Your task to perform on an android device: turn off picture-in-picture Image 0: 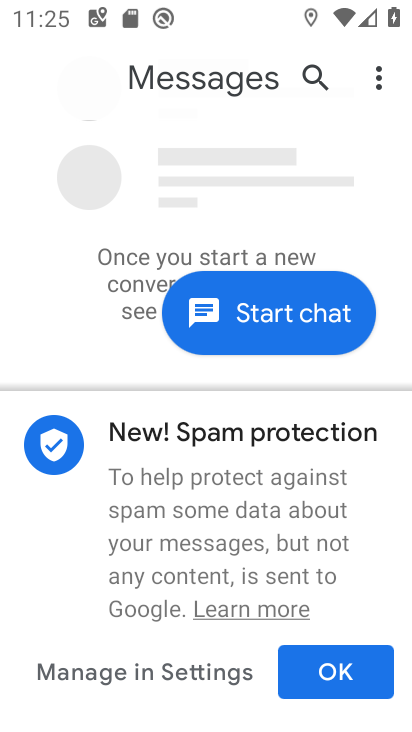
Step 0: press home button
Your task to perform on an android device: turn off picture-in-picture Image 1: 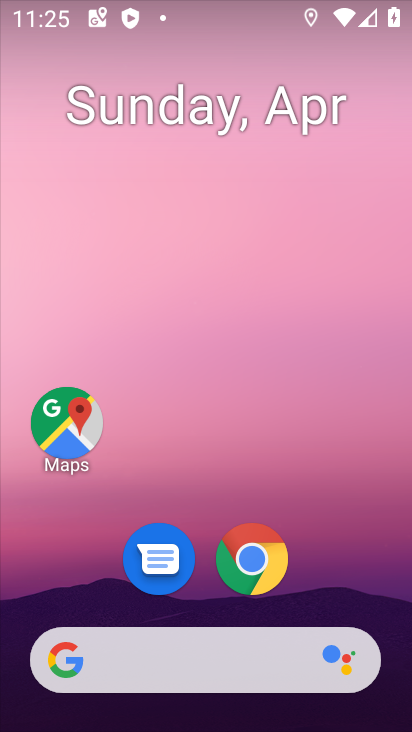
Step 1: click (262, 557)
Your task to perform on an android device: turn off picture-in-picture Image 2: 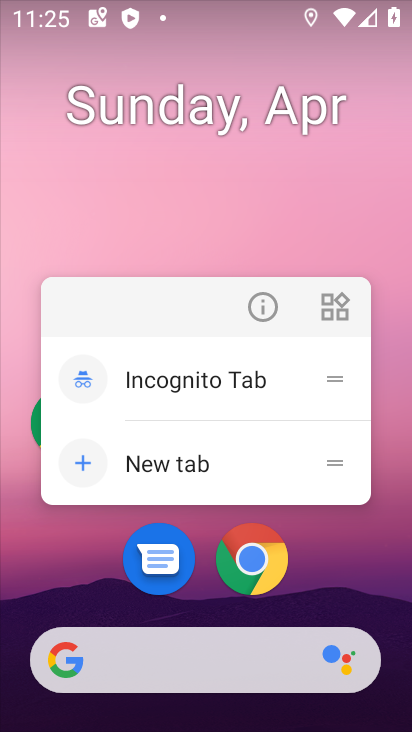
Step 2: click (260, 313)
Your task to perform on an android device: turn off picture-in-picture Image 3: 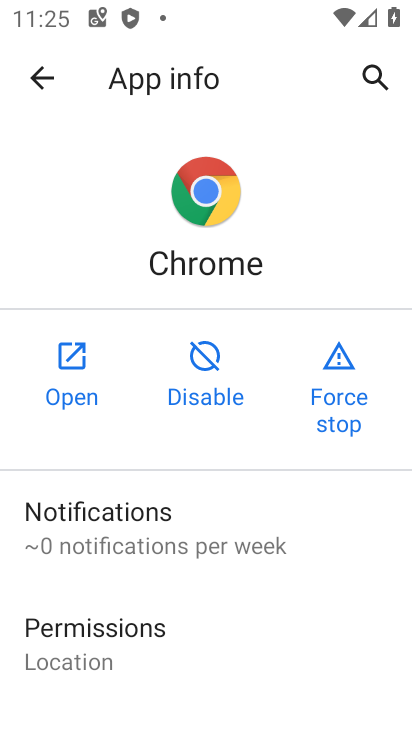
Step 3: drag from (273, 553) to (267, 280)
Your task to perform on an android device: turn off picture-in-picture Image 4: 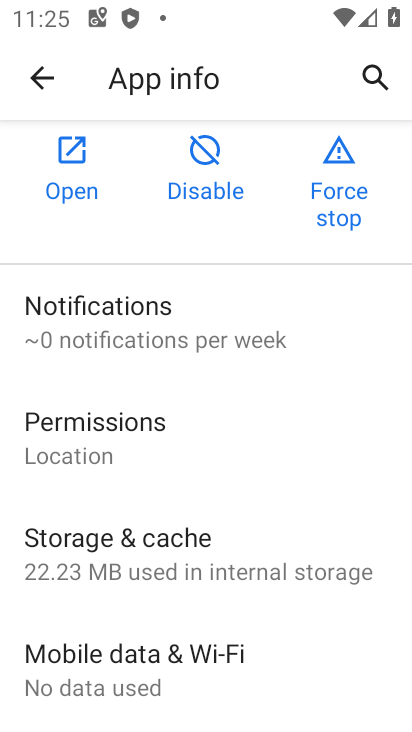
Step 4: drag from (248, 556) to (236, 287)
Your task to perform on an android device: turn off picture-in-picture Image 5: 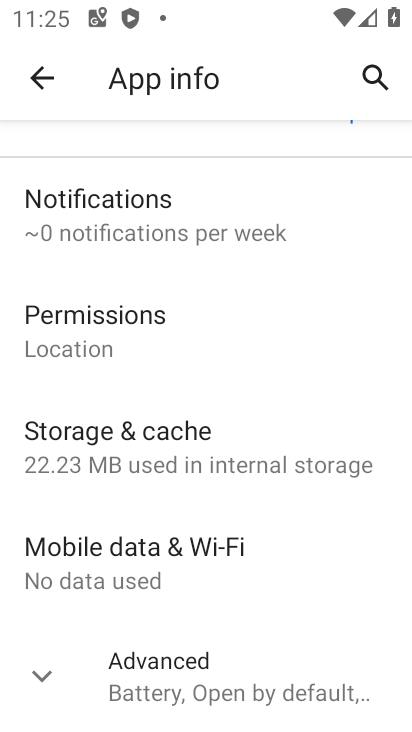
Step 5: click (207, 690)
Your task to perform on an android device: turn off picture-in-picture Image 6: 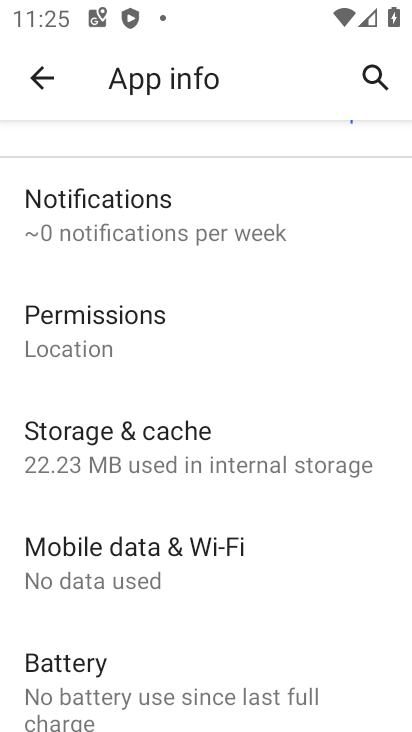
Step 6: drag from (207, 686) to (201, 417)
Your task to perform on an android device: turn off picture-in-picture Image 7: 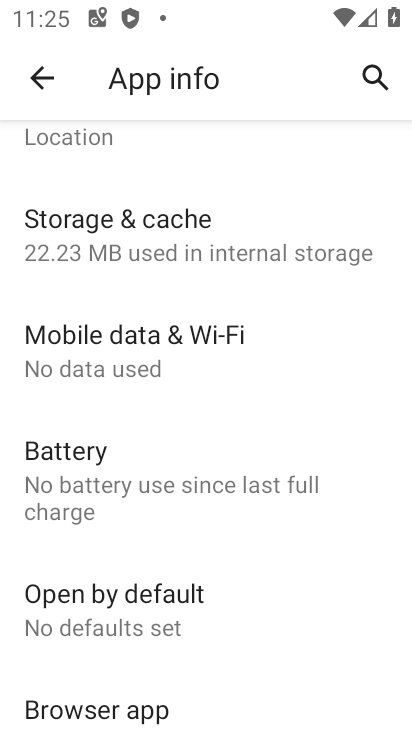
Step 7: drag from (195, 609) to (192, 469)
Your task to perform on an android device: turn off picture-in-picture Image 8: 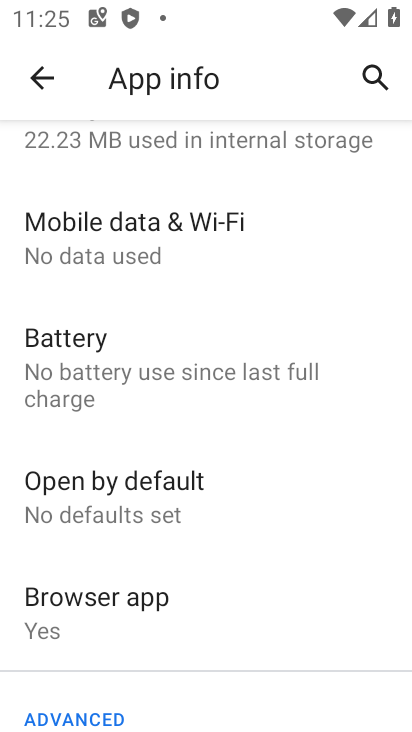
Step 8: drag from (196, 578) to (197, 450)
Your task to perform on an android device: turn off picture-in-picture Image 9: 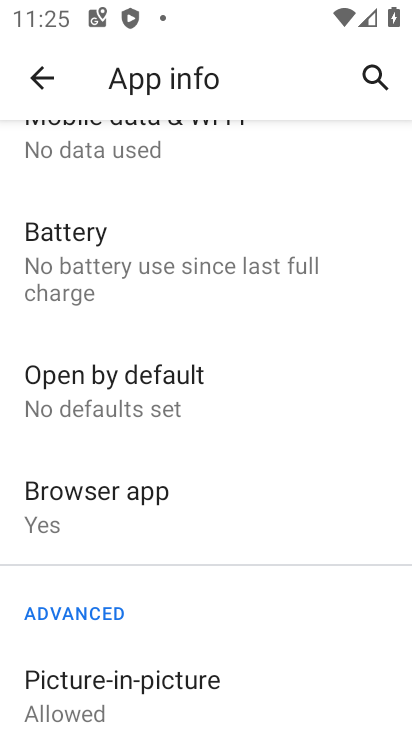
Step 9: drag from (213, 586) to (213, 447)
Your task to perform on an android device: turn off picture-in-picture Image 10: 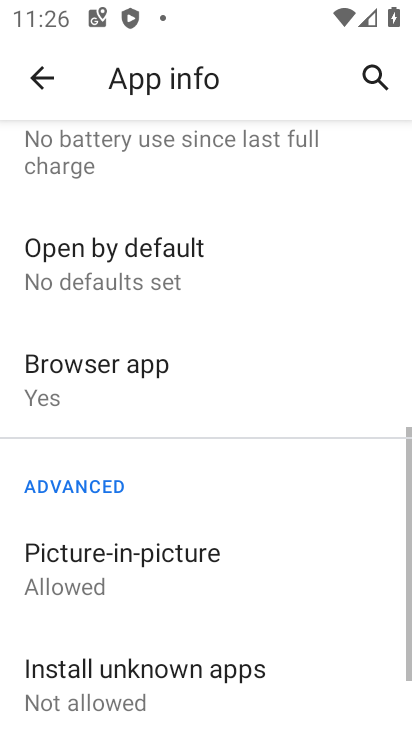
Step 10: click (186, 560)
Your task to perform on an android device: turn off picture-in-picture Image 11: 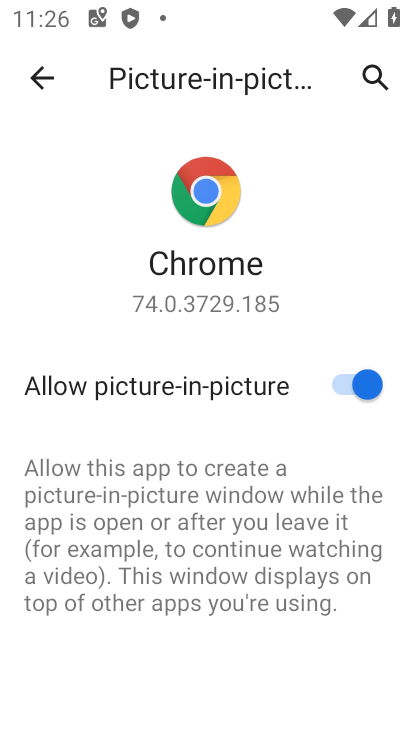
Step 11: click (353, 387)
Your task to perform on an android device: turn off picture-in-picture Image 12: 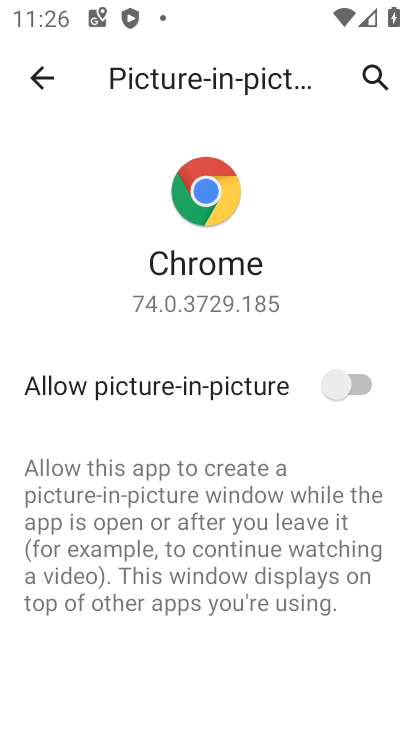
Step 12: task complete